Your task to perform on an android device: toggle notifications settings in the gmail app Image 0: 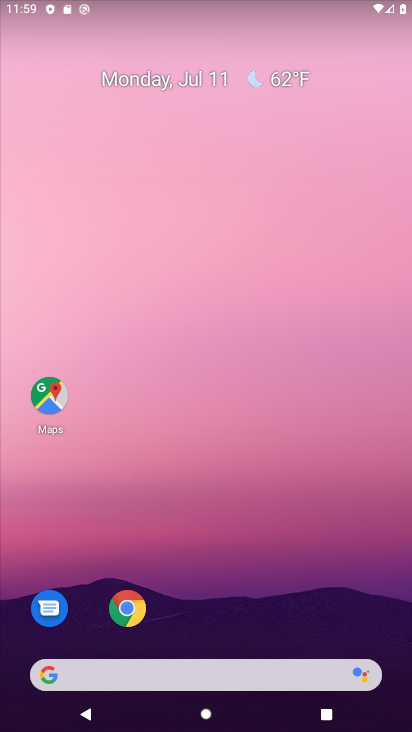
Step 0: drag from (322, 521) to (375, 427)
Your task to perform on an android device: toggle notifications settings in the gmail app Image 1: 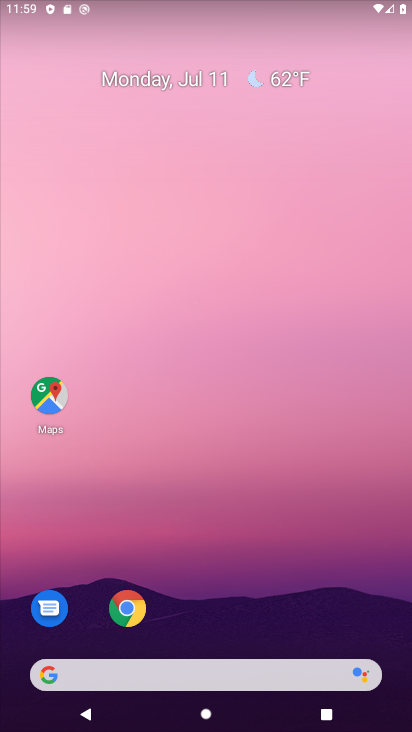
Step 1: drag from (303, 583) to (308, 12)
Your task to perform on an android device: toggle notifications settings in the gmail app Image 2: 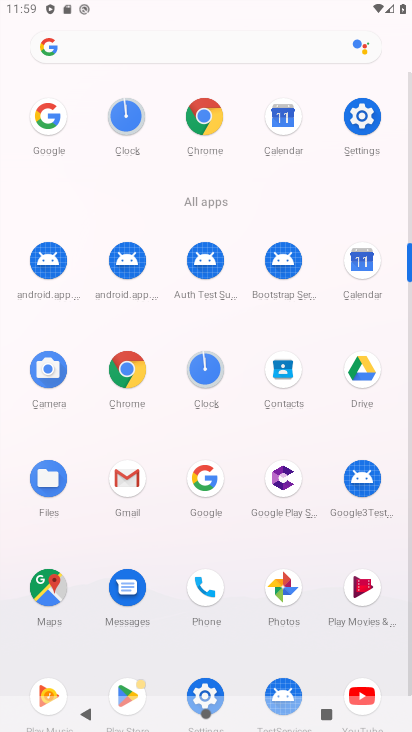
Step 2: click (138, 478)
Your task to perform on an android device: toggle notifications settings in the gmail app Image 3: 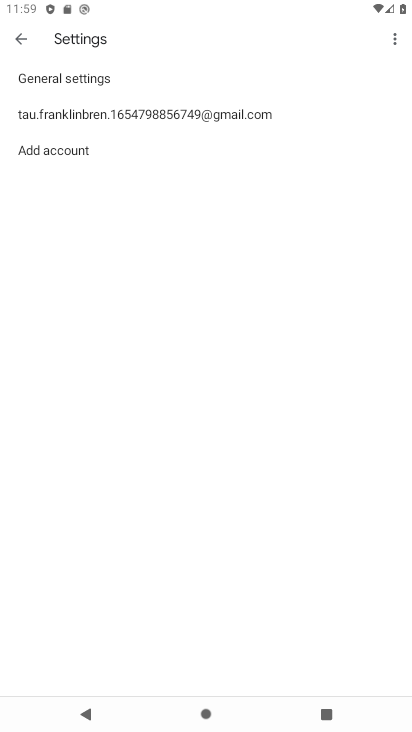
Step 3: click (152, 118)
Your task to perform on an android device: toggle notifications settings in the gmail app Image 4: 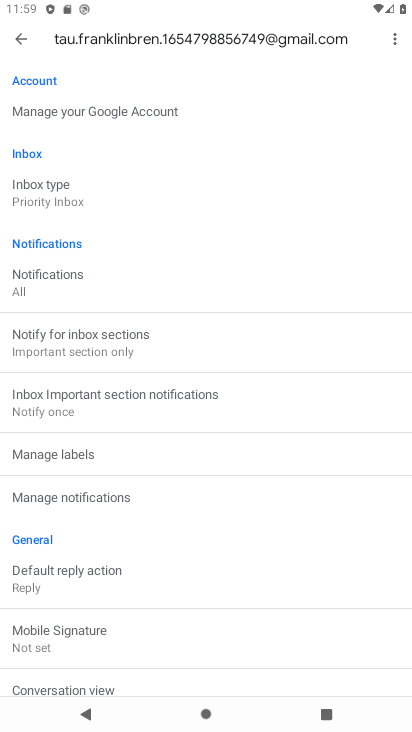
Step 4: click (80, 280)
Your task to perform on an android device: toggle notifications settings in the gmail app Image 5: 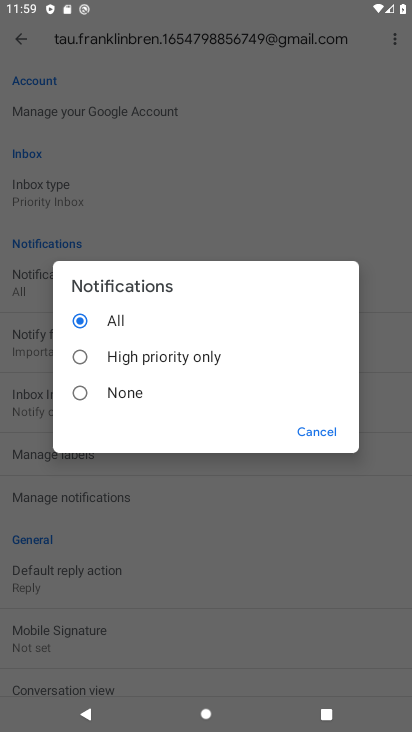
Step 5: click (75, 359)
Your task to perform on an android device: toggle notifications settings in the gmail app Image 6: 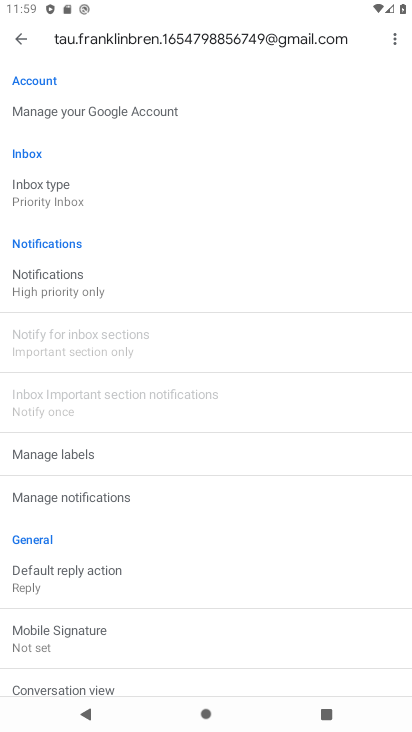
Step 6: task complete